Your task to perform on an android device: all mails in gmail Image 0: 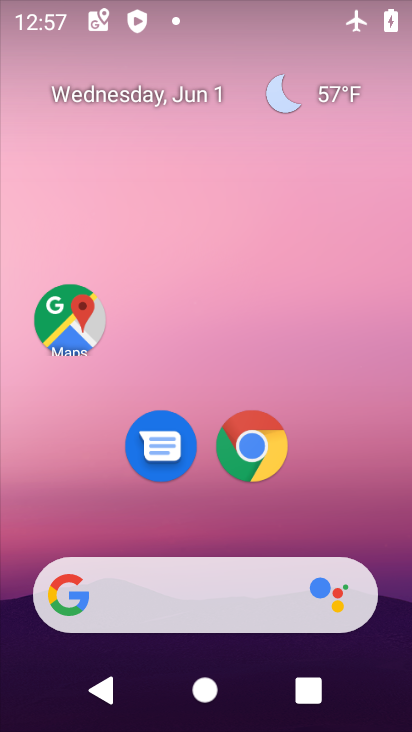
Step 0: drag from (281, 514) to (248, 145)
Your task to perform on an android device: all mails in gmail Image 1: 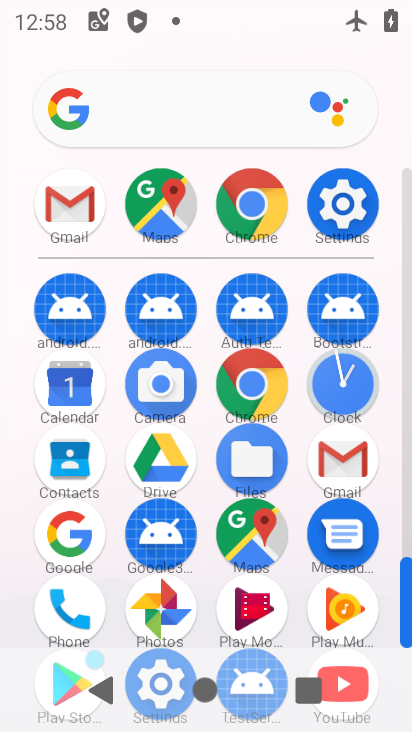
Step 1: click (338, 463)
Your task to perform on an android device: all mails in gmail Image 2: 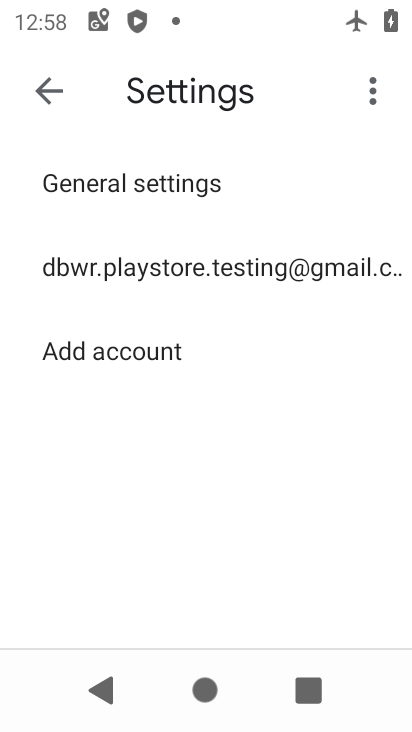
Step 2: press back button
Your task to perform on an android device: all mails in gmail Image 3: 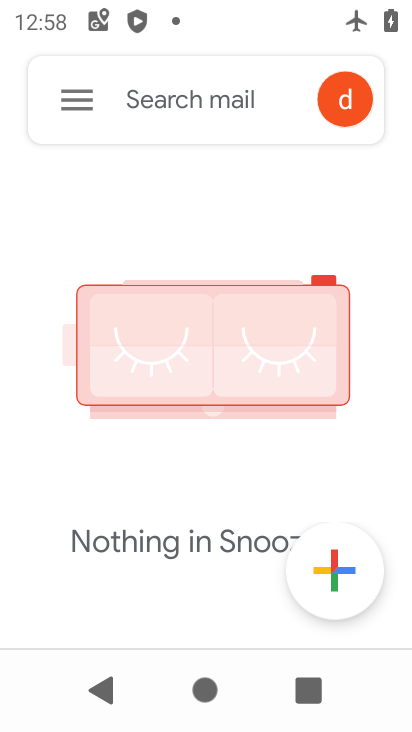
Step 3: click (81, 97)
Your task to perform on an android device: all mails in gmail Image 4: 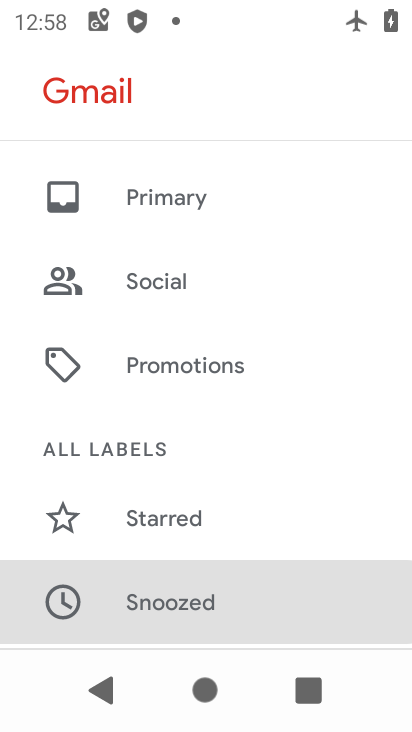
Step 4: drag from (163, 552) to (164, 91)
Your task to perform on an android device: all mails in gmail Image 5: 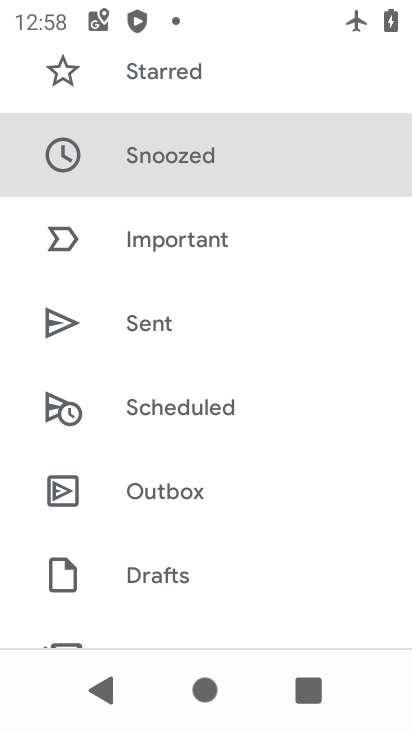
Step 5: drag from (191, 551) to (185, 115)
Your task to perform on an android device: all mails in gmail Image 6: 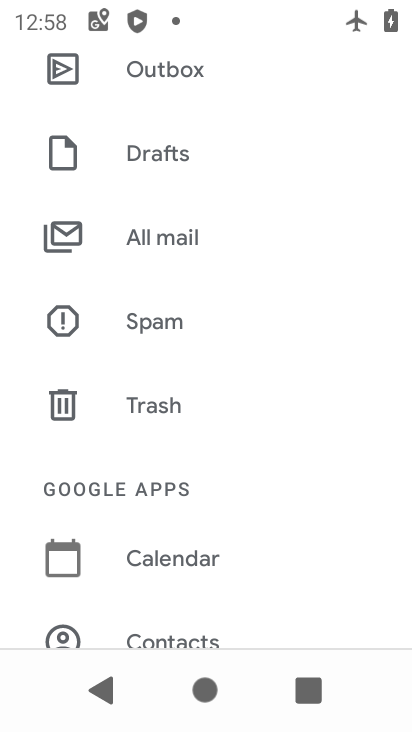
Step 6: click (183, 229)
Your task to perform on an android device: all mails in gmail Image 7: 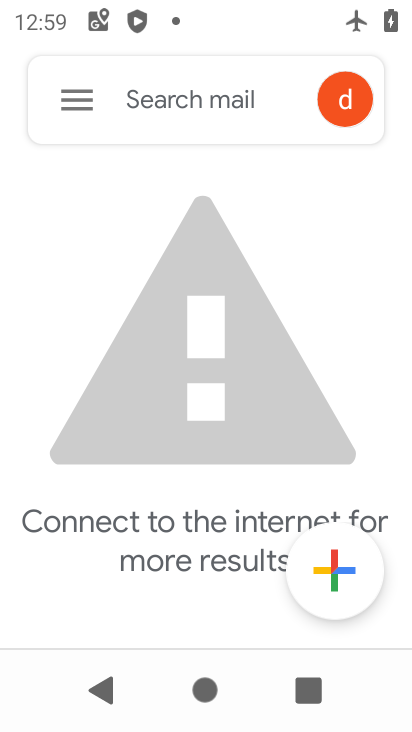
Step 7: task complete